Your task to perform on an android device: What's on my calendar today? Image 0: 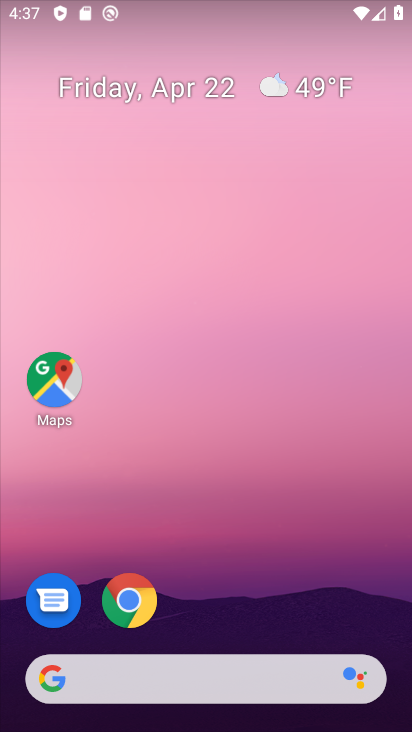
Step 0: drag from (193, 553) to (174, 49)
Your task to perform on an android device: What's on my calendar today? Image 1: 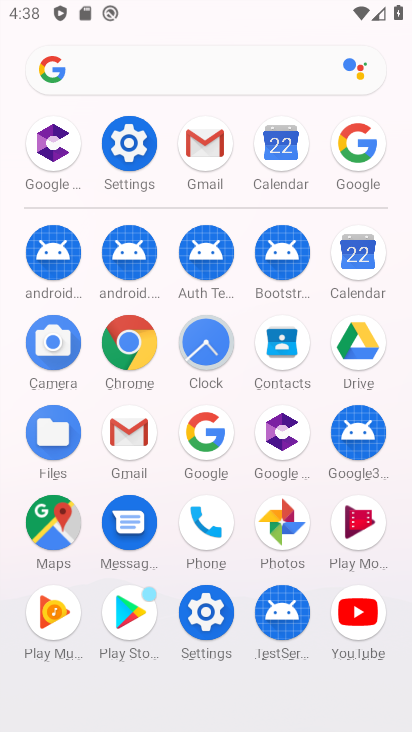
Step 1: click (360, 255)
Your task to perform on an android device: What's on my calendar today? Image 2: 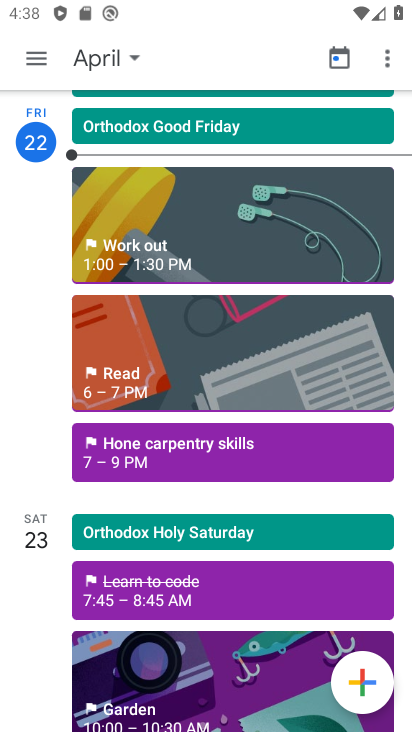
Step 2: task complete